Your task to perform on an android device: turn off priority inbox in the gmail app Image 0: 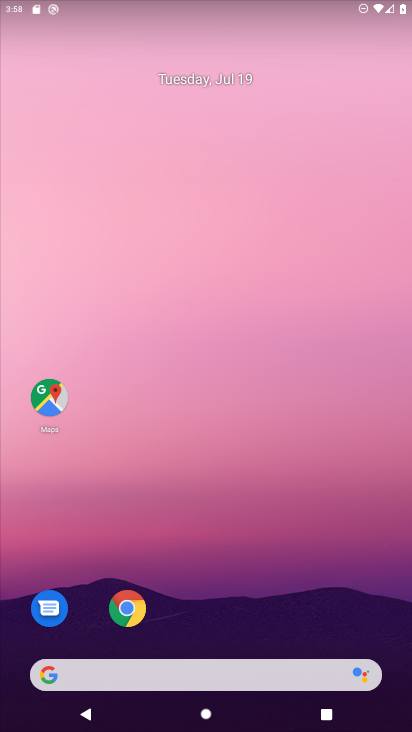
Step 0: drag from (267, 598) to (259, 37)
Your task to perform on an android device: turn off priority inbox in the gmail app Image 1: 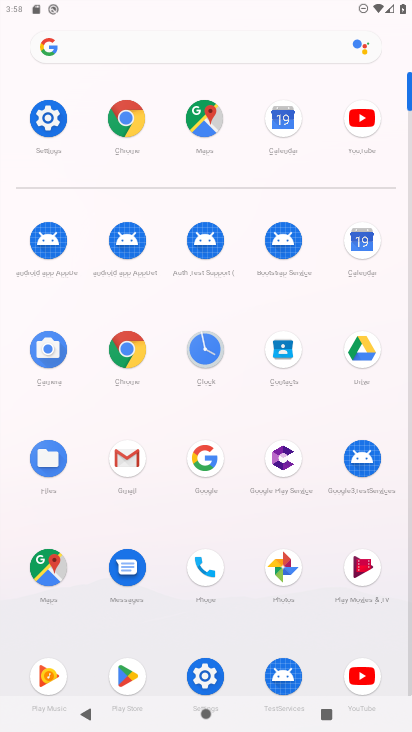
Step 1: click (128, 454)
Your task to perform on an android device: turn off priority inbox in the gmail app Image 2: 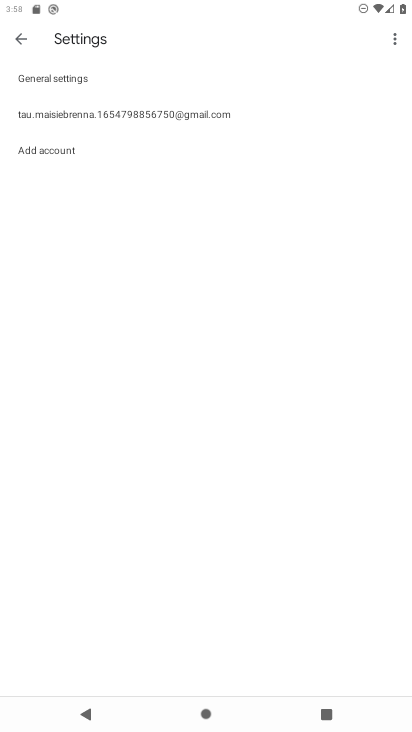
Step 2: click (73, 118)
Your task to perform on an android device: turn off priority inbox in the gmail app Image 3: 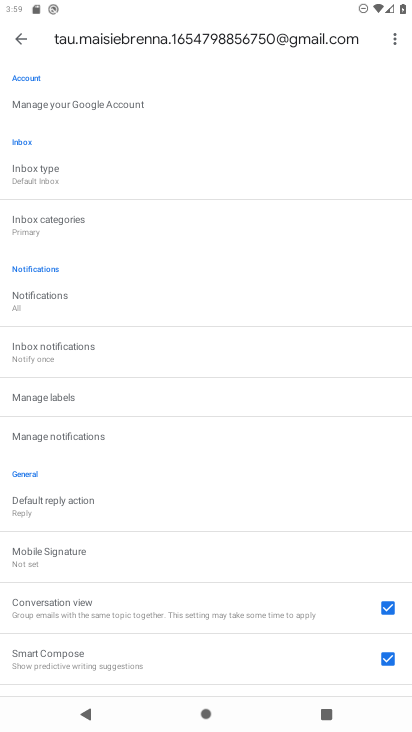
Step 3: drag from (163, 148) to (200, 460)
Your task to perform on an android device: turn off priority inbox in the gmail app Image 4: 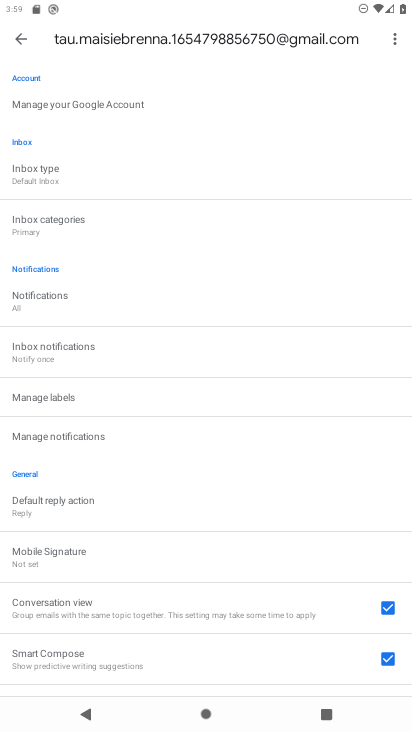
Step 4: click (56, 177)
Your task to perform on an android device: turn off priority inbox in the gmail app Image 5: 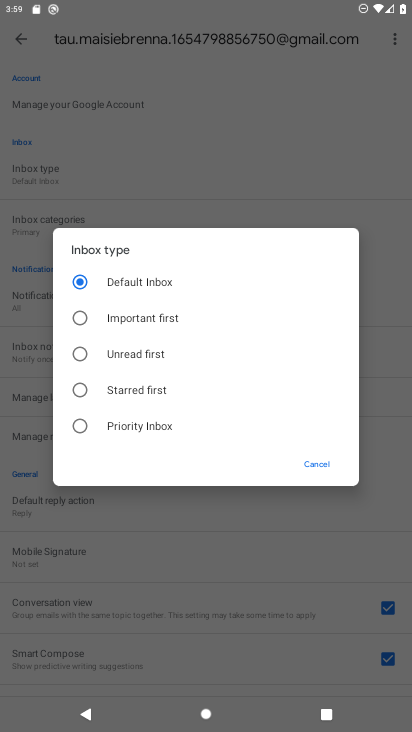
Step 5: task complete